Your task to perform on an android device: toggle show notifications on the lock screen Image 0: 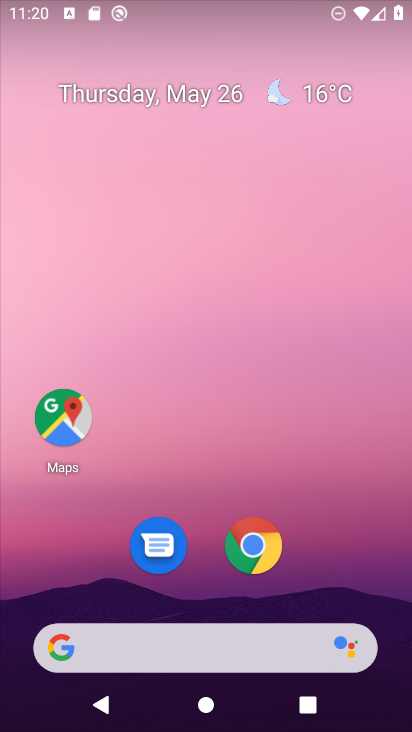
Step 0: press home button
Your task to perform on an android device: toggle show notifications on the lock screen Image 1: 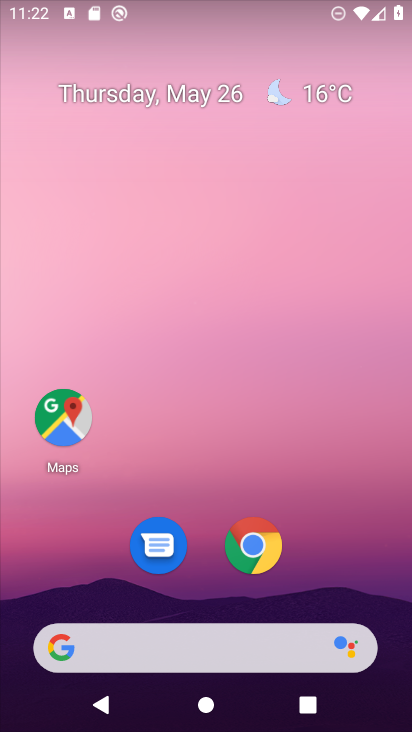
Step 1: drag from (243, 579) to (247, 144)
Your task to perform on an android device: toggle show notifications on the lock screen Image 2: 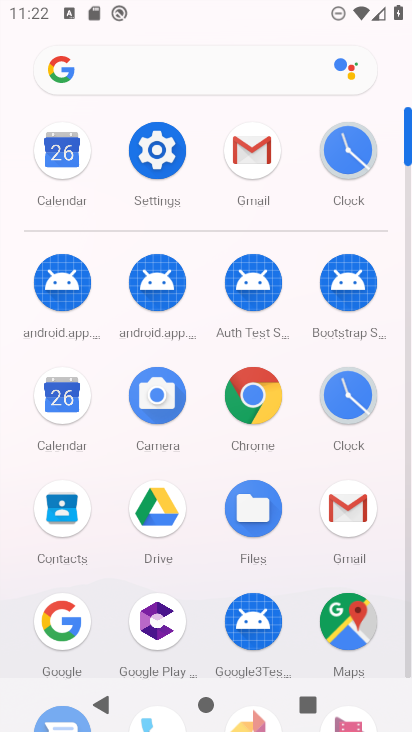
Step 2: click (159, 181)
Your task to perform on an android device: toggle show notifications on the lock screen Image 3: 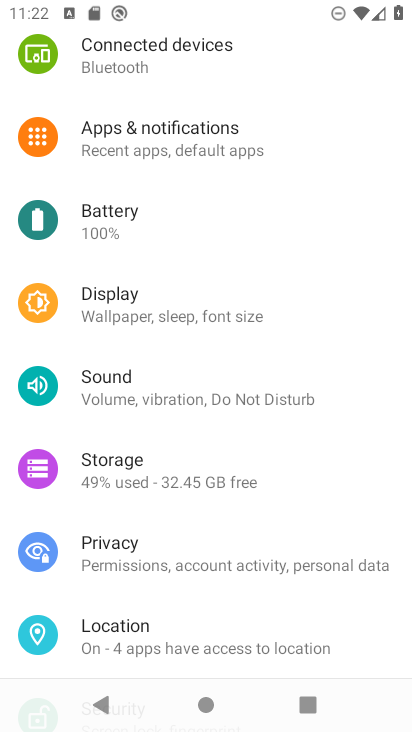
Step 3: click (158, 146)
Your task to perform on an android device: toggle show notifications on the lock screen Image 4: 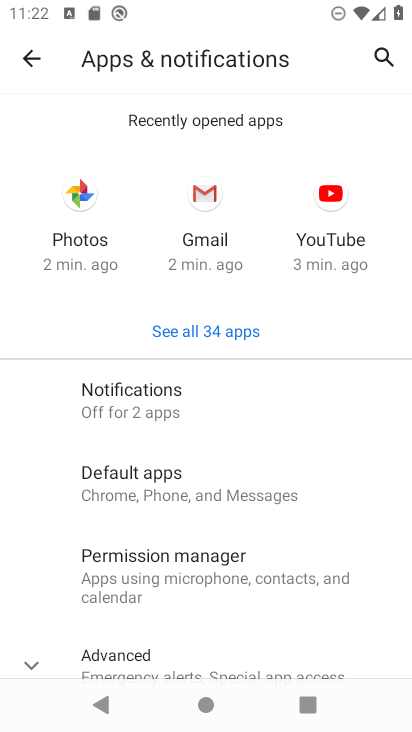
Step 4: click (143, 411)
Your task to perform on an android device: toggle show notifications on the lock screen Image 5: 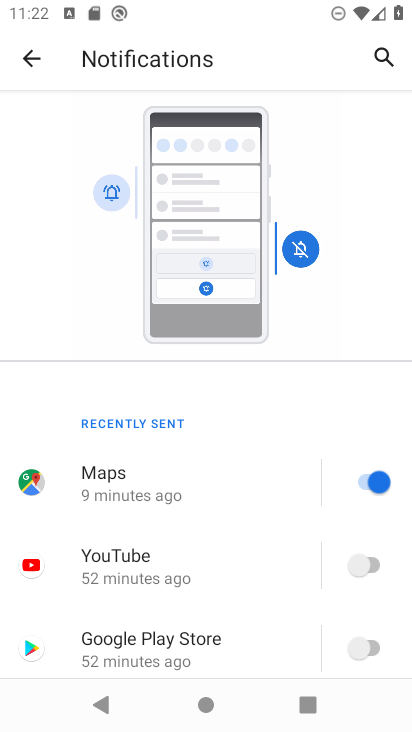
Step 5: drag from (346, 423) to (349, 177)
Your task to perform on an android device: toggle show notifications on the lock screen Image 6: 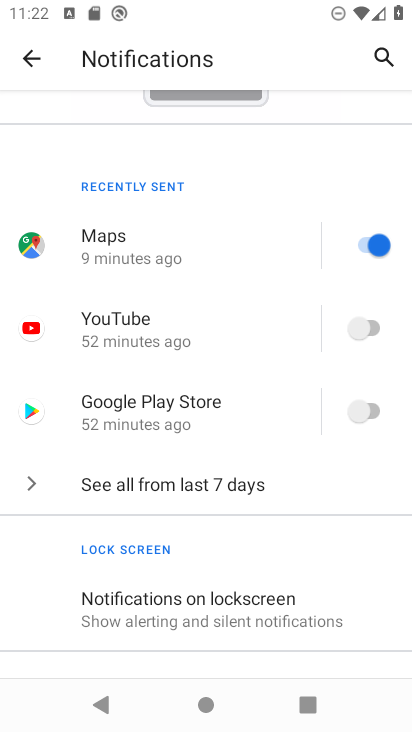
Step 6: click (213, 619)
Your task to perform on an android device: toggle show notifications on the lock screen Image 7: 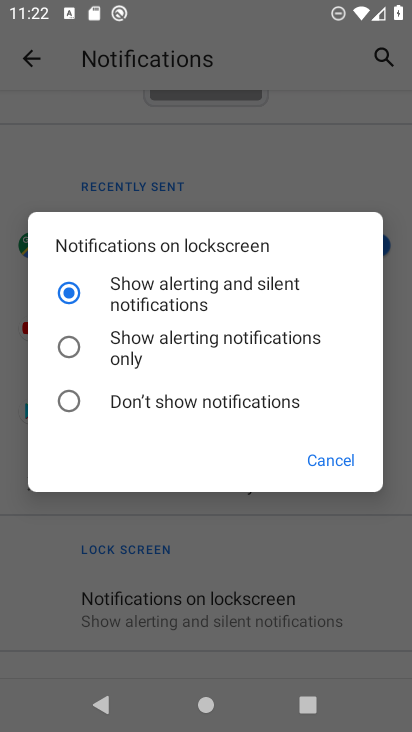
Step 7: task complete